Your task to perform on an android device: check android version Image 0: 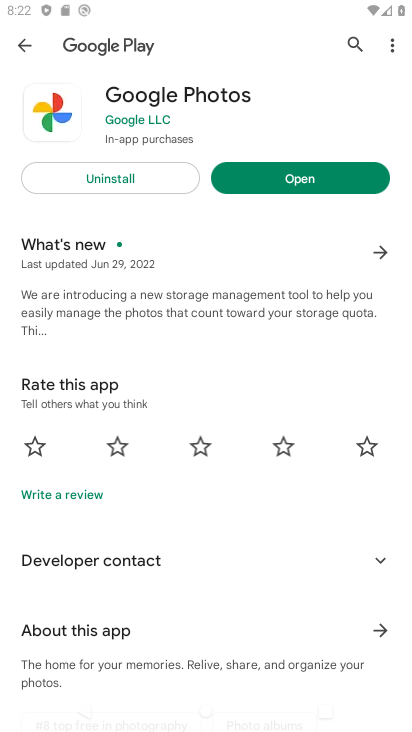
Step 0: press home button
Your task to perform on an android device: check android version Image 1: 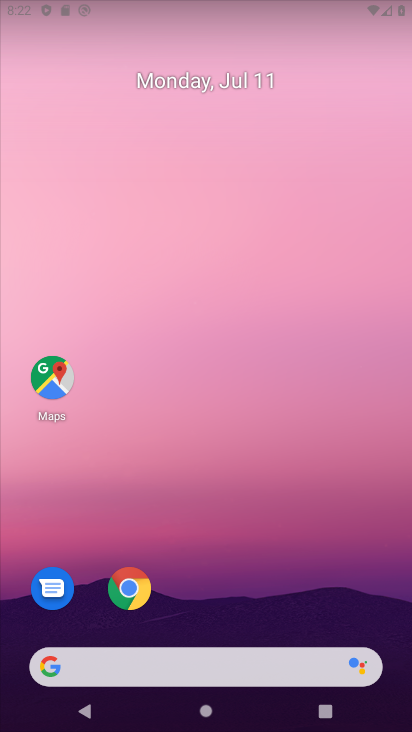
Step 1: drag from (122, 703) to (246, 17)
Your task to perform on an android device: check android version Image 2: 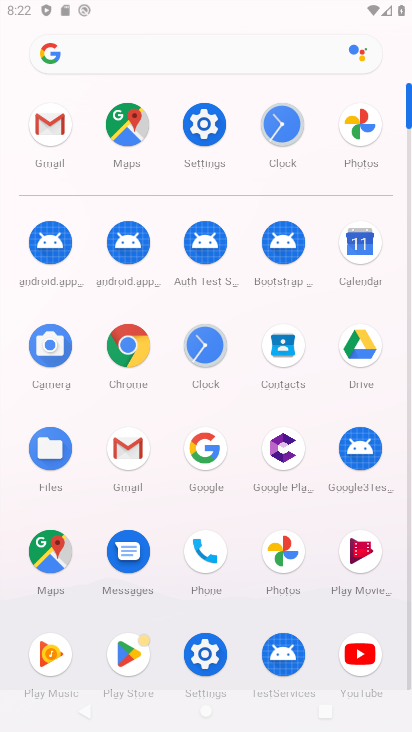
Step 2: click (198, 118)
Your task to perform on an android device: check android version Image 3: 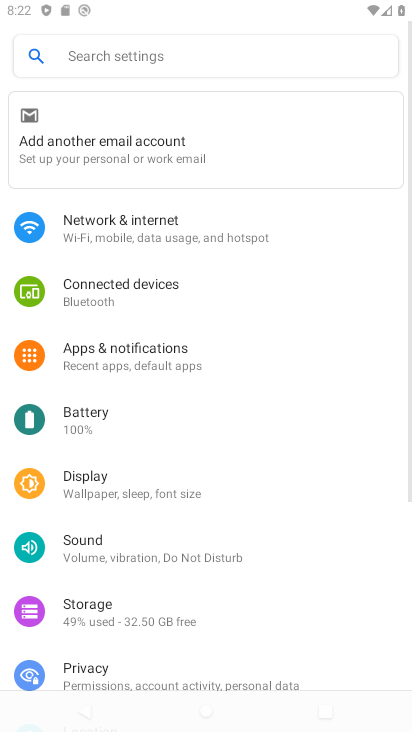
Step 3: drag from (257, 638) to (257, 189)
Your task to perform on an android device: check android version Image 4: 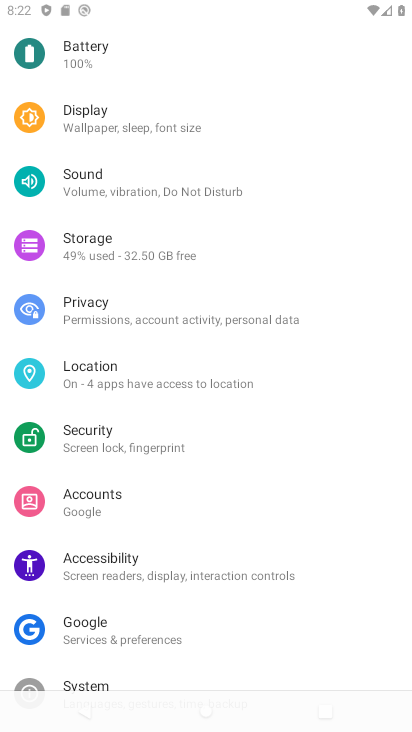
Step 4: drag from (304, 345) to (393, 20)
Your task to perform on an android device: check android version Image 5: 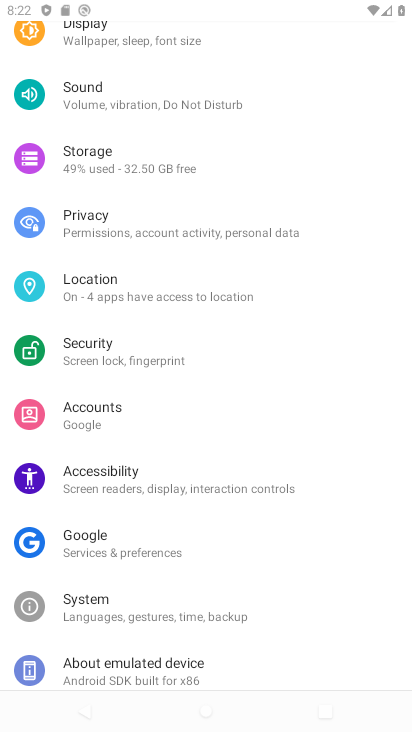
Step 5: click (173, 673)
Your task to perform on an android device: check android version Image 6: 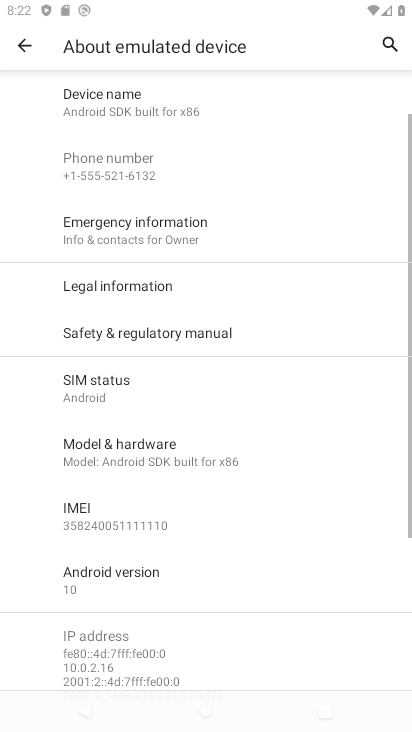
Step 6: task complete